Your task to perform on an android device: Open sound settings Image 0: 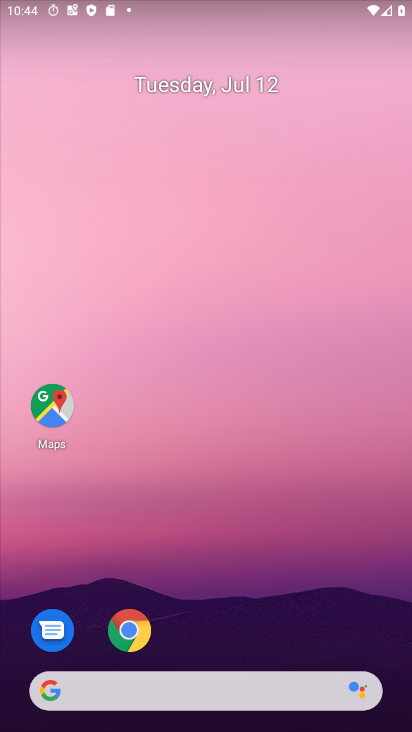
Step 0: drag from (217, 632) to (200, 119)
Your task to perform on an android device: Open sound settings Image 1: 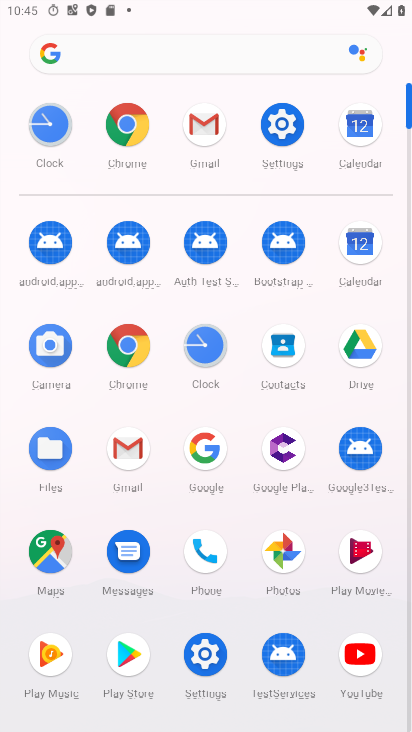
Step 1: click (281, 135)
Your task to perform on an android device: Open sound settings Image 2: 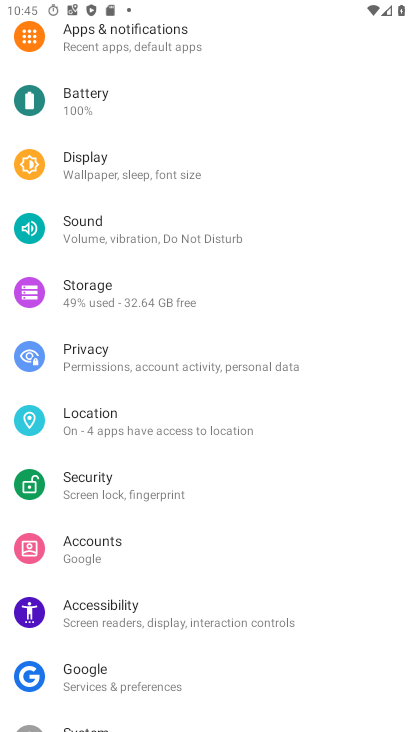
Step 2: click (110, 227)
Your task to perform on an android device: Open sound settings Image 3: 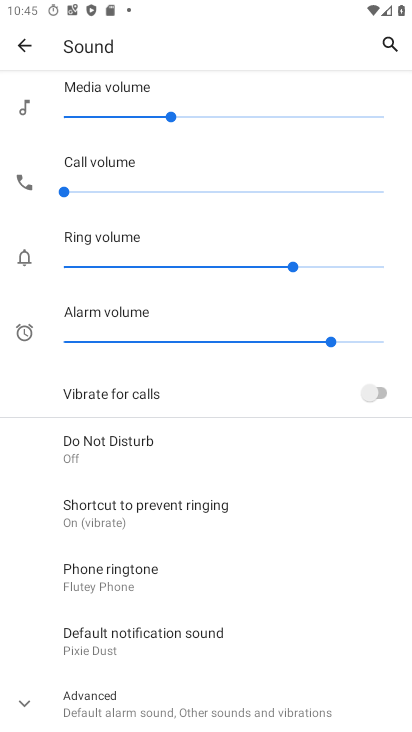
Step 3: task complete